Your task to perform on an android device: find photos in the google photos app Image 0: 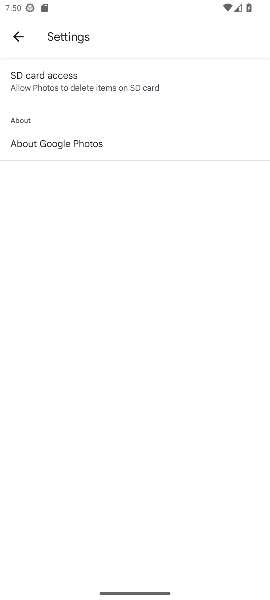
Step 0: press home button
Your task to perform on an android device: find photos in the google photos app Image 1: 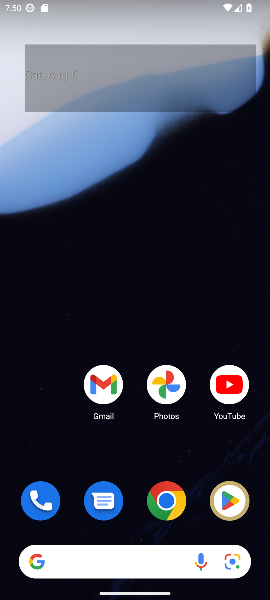
Step 1: click (166, 399)
Your task to perform on an android device: find photos in the google photos app Image 2: 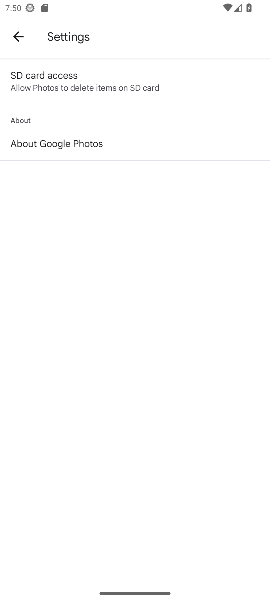
Step 2: click (19, 34)
Your task to perform on an android device: find photos in the google photos app Image 3: 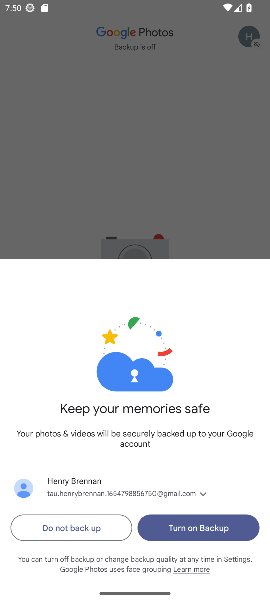
Step 3: click (127, 164)
Your task to perform on an android device: find photos in the google photos app Image 4: 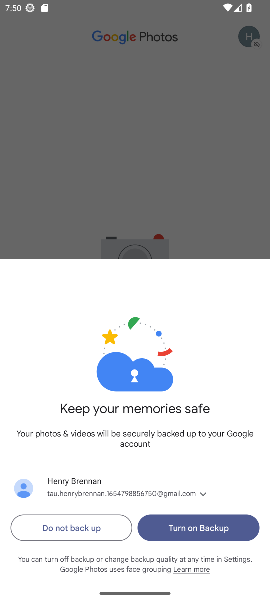
Step 4: click (95, 526)
Your task to perform on an android device: find photos in the google photos app Image 5: 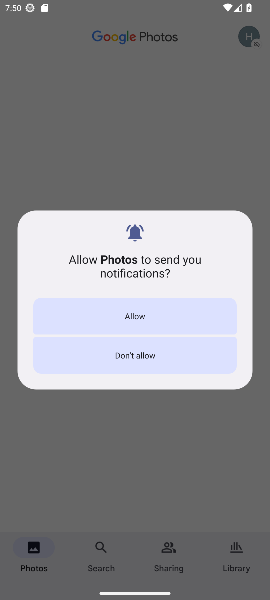
Step 5: click (149, 320)
Your task to perform on an android device: find photos in the google photos app Image 6: 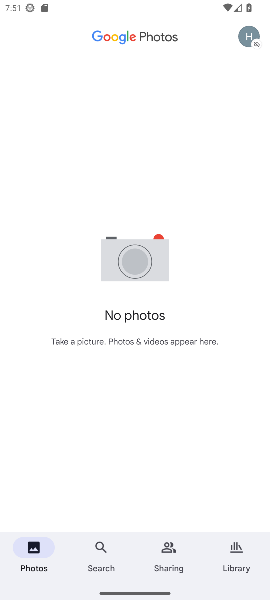
Step 6: task complete